Your task to perform on an android device: Go to internet settings Image 0: 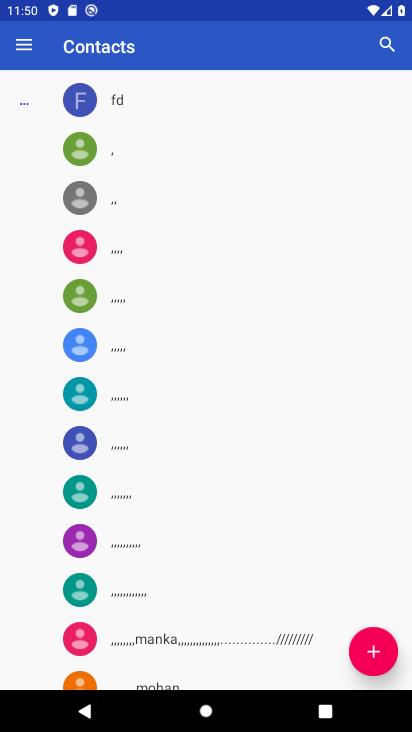
Step 0: press home button
Your task to perform on an android device: Go to internet settings Image 1: 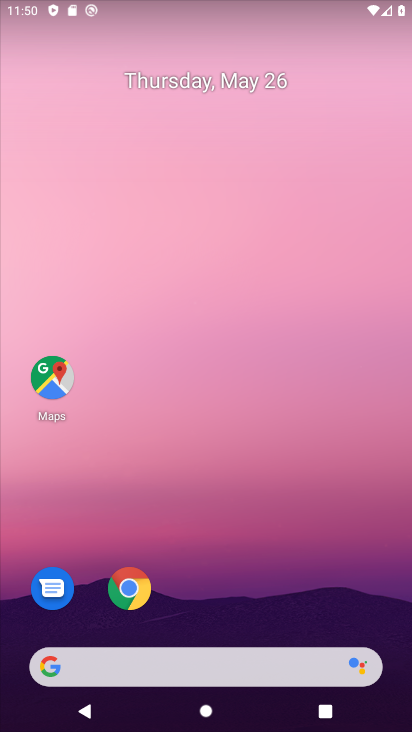
Step 1: drag from (332, 596) to (354, 325)
Your task to perform on an android device: Go to internet settings Image 2: 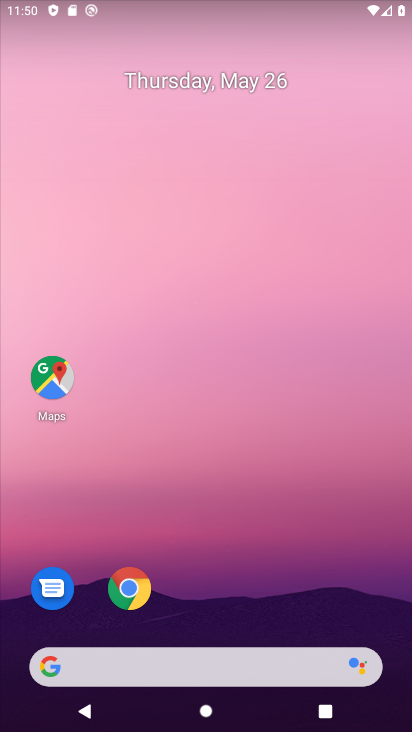
Step 2: drag from (329, 624) to (358, 209)
Your task to perform on an android device: Go to internet settings Image 3: 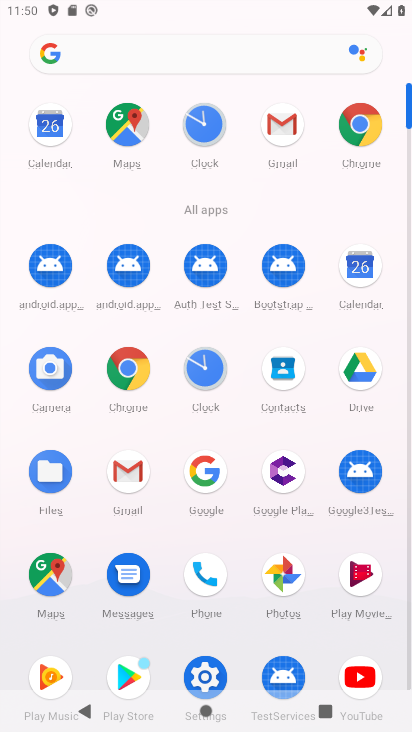
Step 3: click (196, 669)
Your task to perform on an android device: Go to internet settings Image 4: 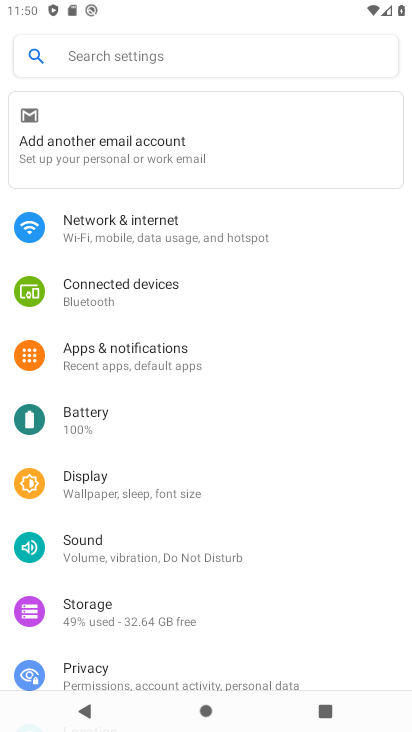
Step 4: click (190, 239)
Your task to perform on an android device: Go to internet settings Image 5: 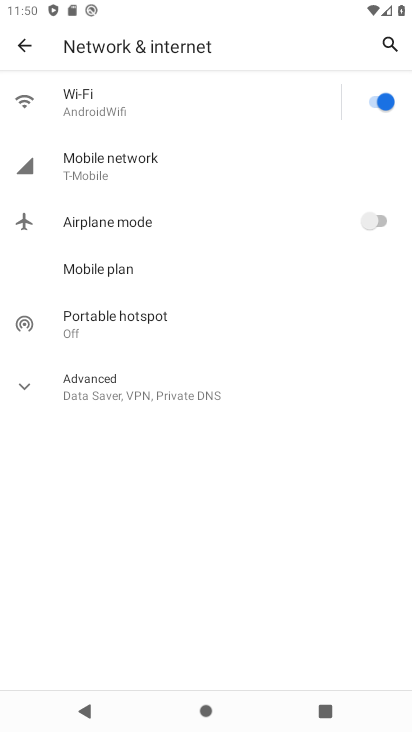
Step 5: task complete